Your task to perform on an android device: turn vacation reply on in the gmail app Image 0: 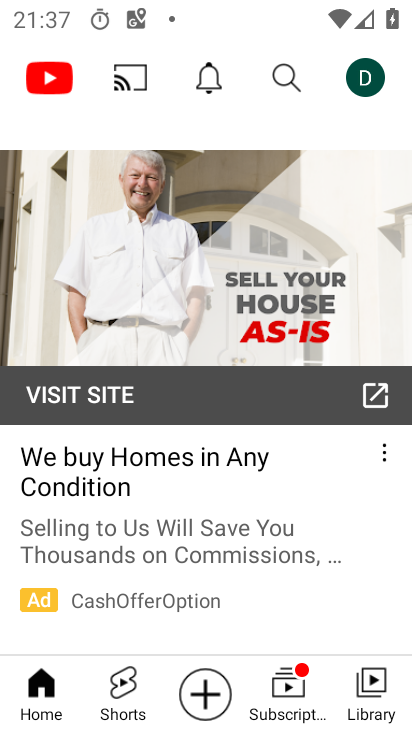
Step 0: press home button
Your task to perform on an android device: turn vacation reply on in the gmail app Image 1: 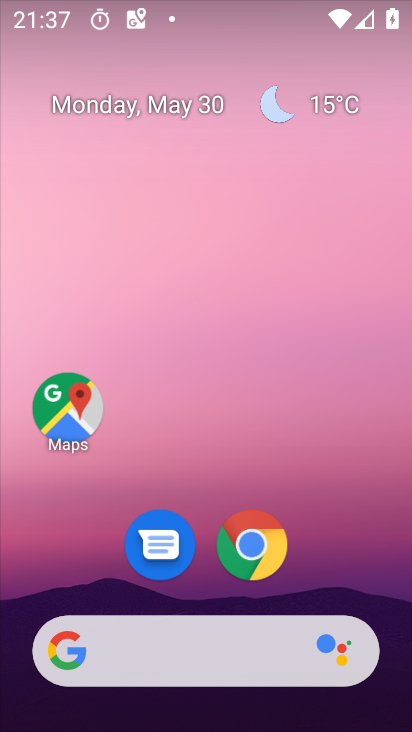
Step 1: drag from (332, 578) to (300, 228)
Your task to perform on an android device: turn vacation reply on in the gmail app Image 2: 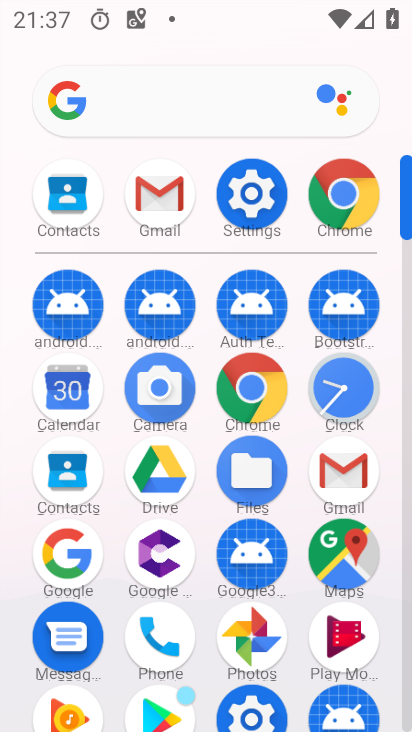
Step 2: click (148, 201)
Your task to perform on an android device: turn vacation reply on in the gmail app Image 3: 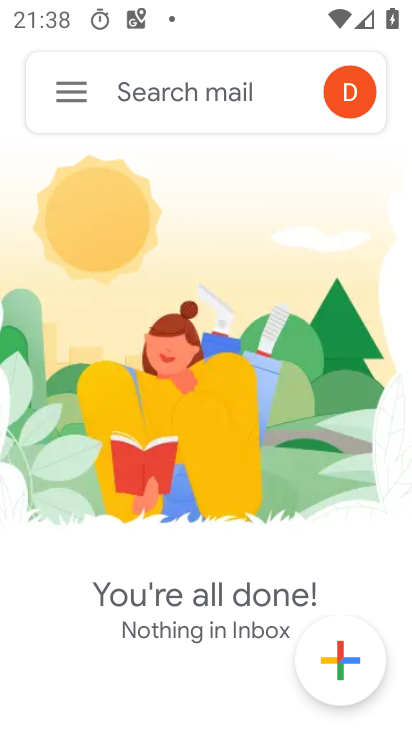
Step 3: click (75, 82)
Your task to perform on an android device: turn vacation reply on in the gmail app Image 4: 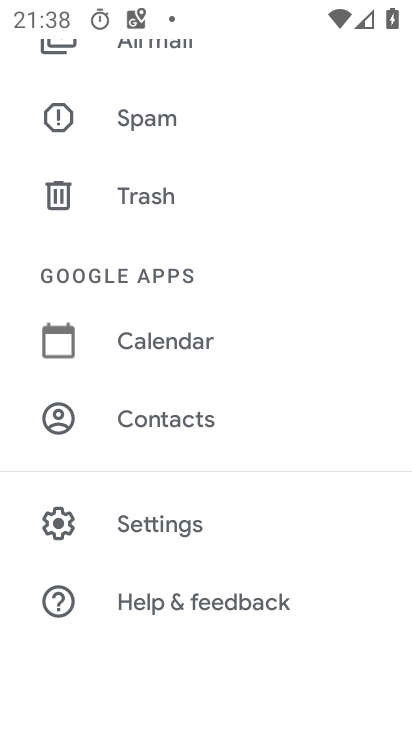
Step 4: click (178, 518)
Your task to perform on an android device: turn vacation reply on in the gmail app Image 5: 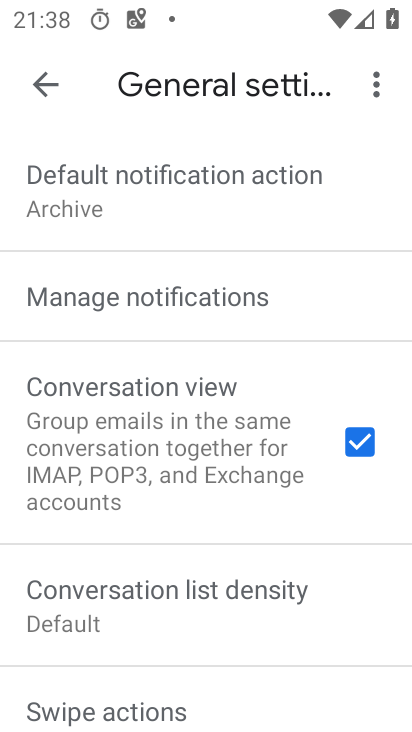
Step 5: drag from (247, 637) to (255, 228)
Your task to perform on an android device: turn vacation reply on in the gmail app Image 6: 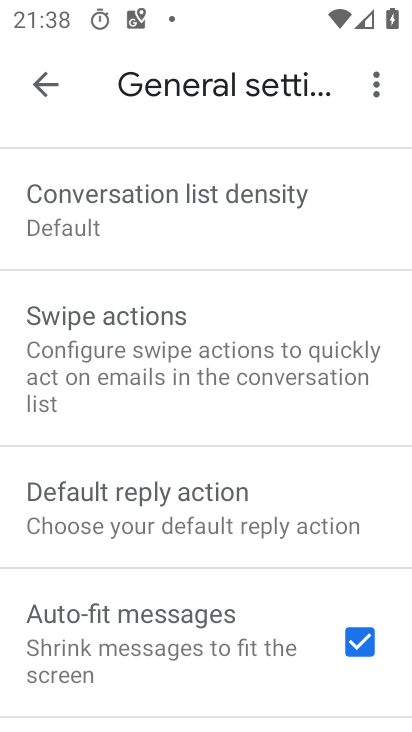
Step 6: click (45, 79)
Your task to perform on an android device: turn vacation reply on in the gmail app Image 7: 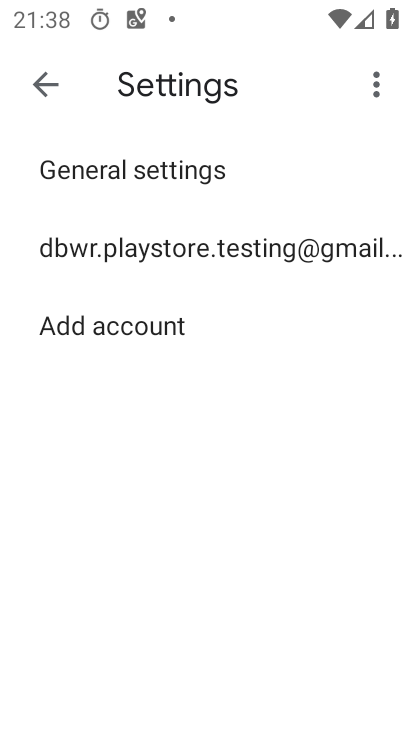
Step 7: click (172, 242)
Your task to perform on an android device: turn vacation reply on in the gmail app Image 8: 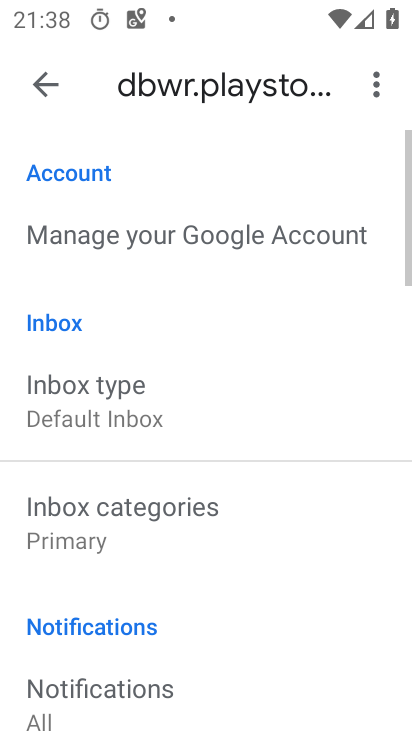
Step 8: drag from (258, 642) to (279, 205)
Your task to perform on an android device: turn vacation reply on in the gmail app Image 9: 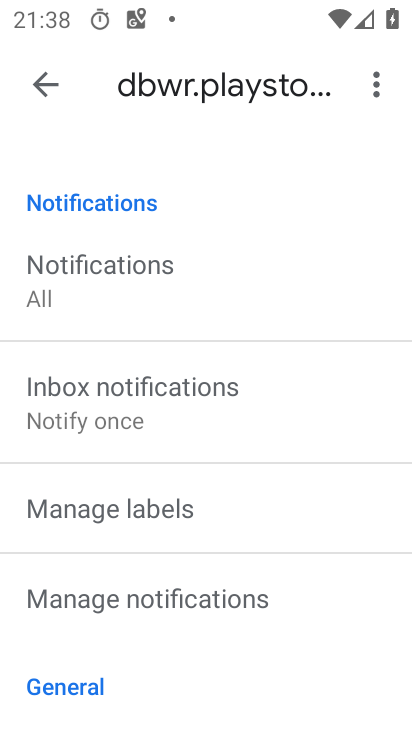
Step 9: drag from (331, 632) to (283, 145)
Your task to perform on an android device: turn vacation reply on in the gmail app Image 10: 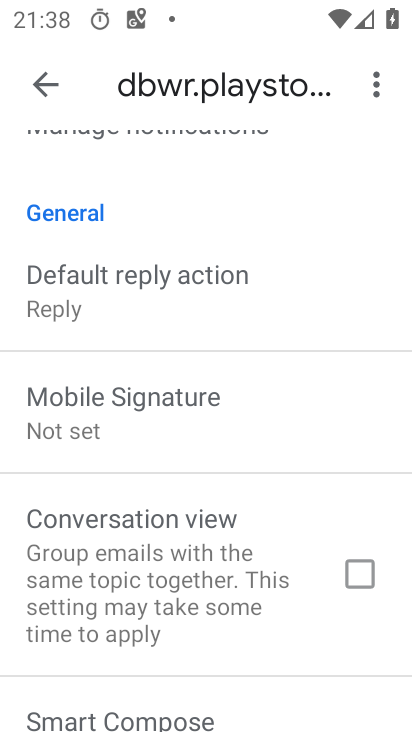
Step 10: drag from (327, 668) to (353, 199)
Your task to perform on an android device: turn vacation reply on in the gmail app Image 11: 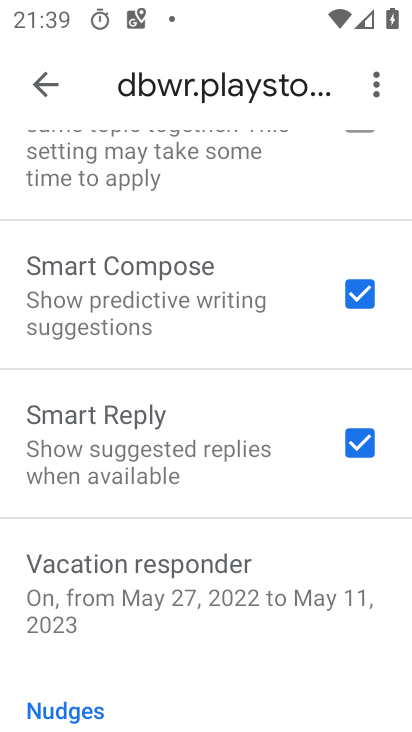
Step 11: click (142, 594)
Your task to perform on an android device: turn vacation reply on in the gmail app Image 12: 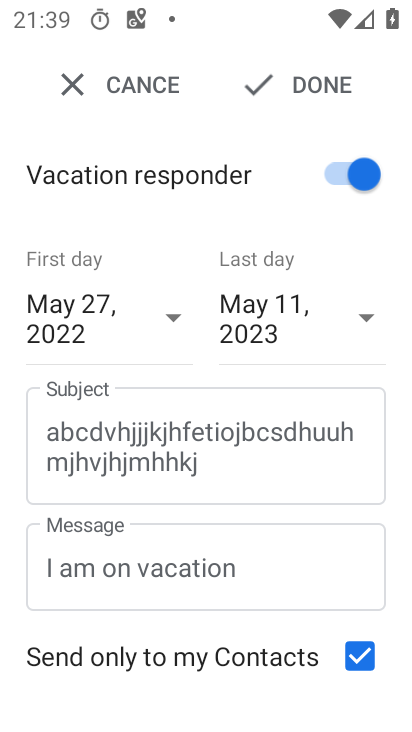
Step 12: click (306, 82)
Your task to perform on an android device: turn vacation reply on in the gmail app Image 13: 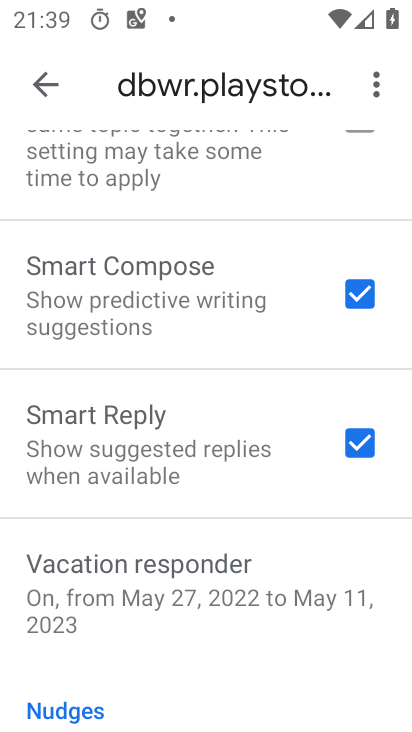
Step 13: task complete